Your task to perform on an android device: Is it going to rain today? Image 0: 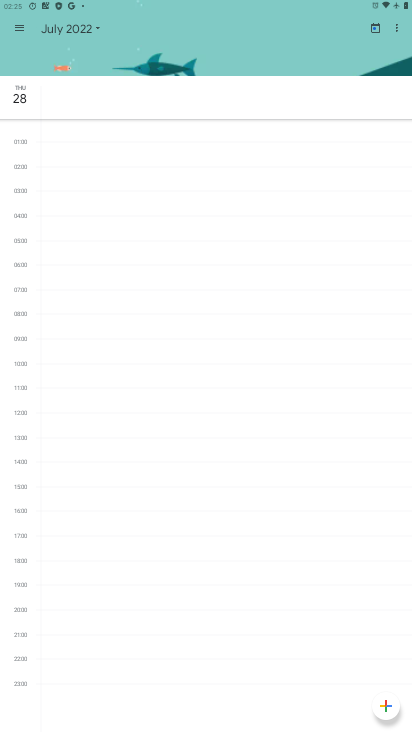
Step 0: press home button
Your task to perform on an android device: Is it going to rain today? Image 1: 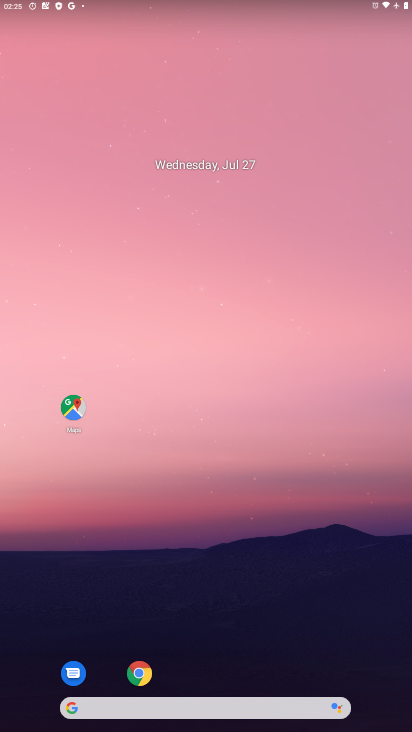
Step 1: click (161, 702)
Your task to perform on an android device: Is it going to rain today? Image 2: 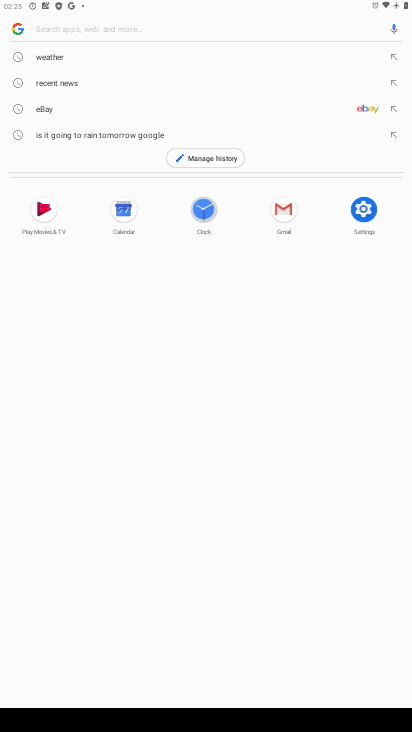
Step 2: click (58, 57)
Your task to perform on an android device: Is it going to rain today? Image 3: 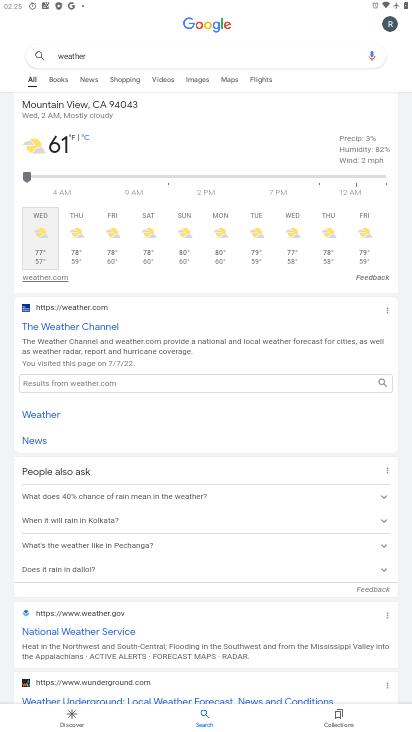
Step 3: click (41, 242)
Your task to perform on an android device: Is it going to rain today? Image 4: 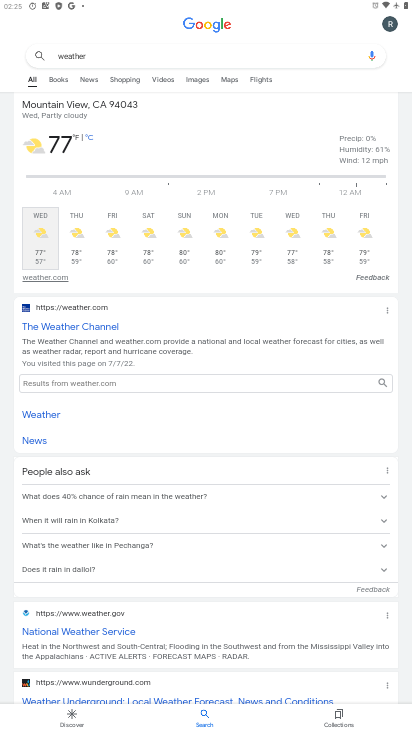
Step 4: task complete